Your task to perform on an android device: open device folders in google photos Image 0: 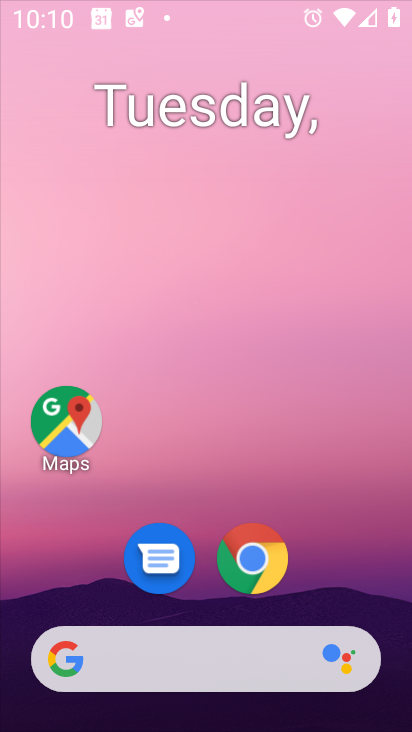
Step 0: drag from (175, 38) to (255, 560)
Your task to perform on an android device: open device folders in google photos Image 1: 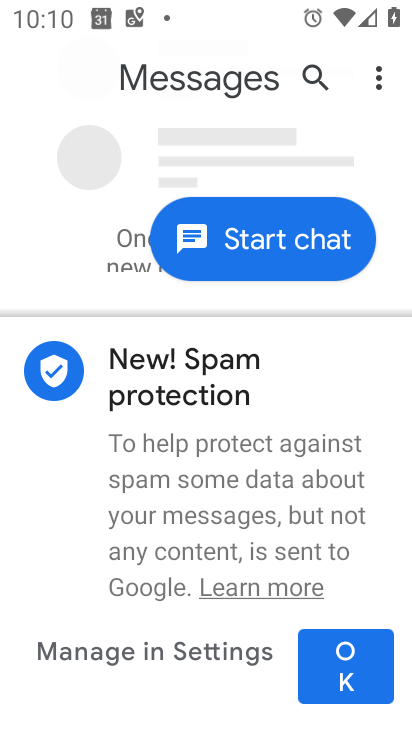
Step 1: click (255, 560)
Your task to perform on an android device: open device folders in google photos Image 2: 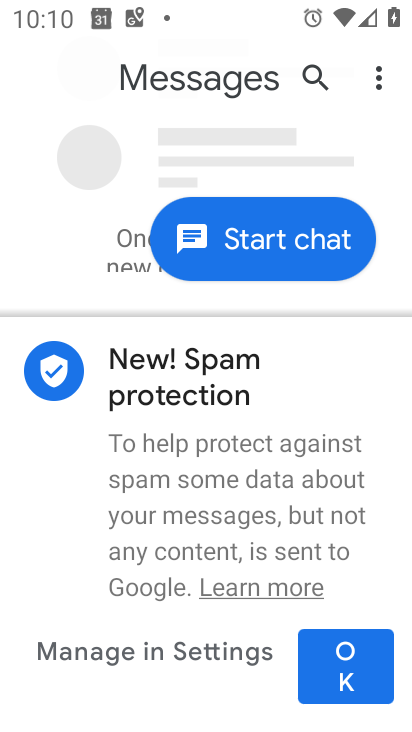
Step 2: press back button
Your task to perform on an android device: open device folders in google photos Image 3: 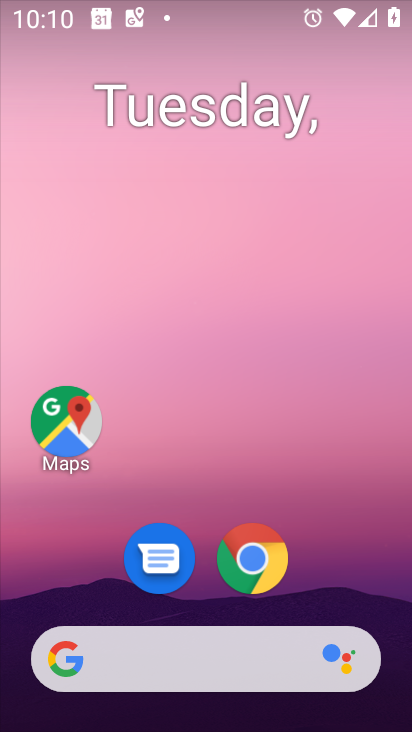
Step 3: drag from (323, 558) to (60, 1)
Your task to perform on an android device: open device folders in google photos Image 4: 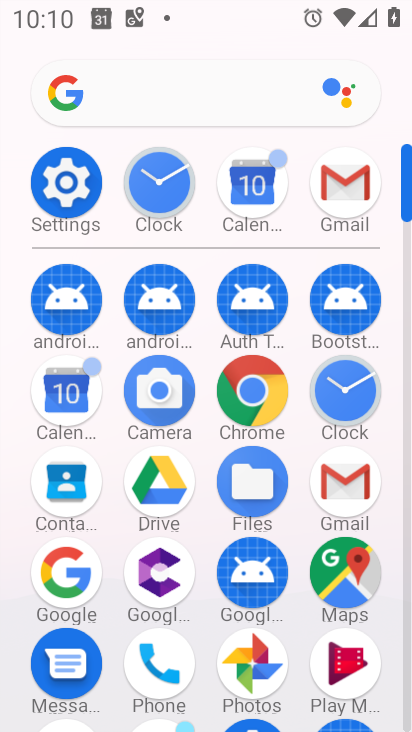
Step 4: click (257, 646)
Your task to perform on an android device: open device folders in google photos Image 5: 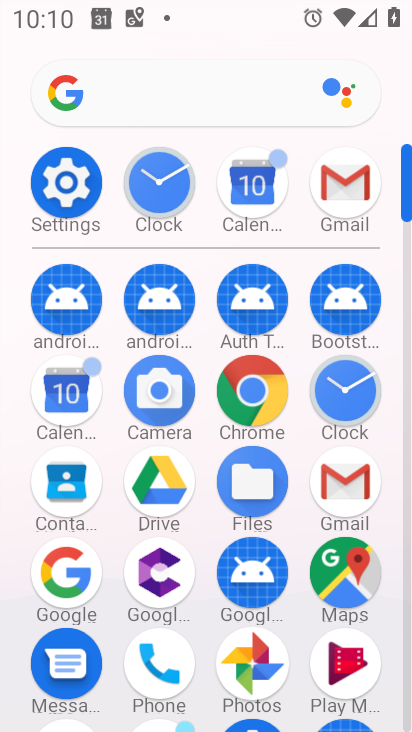
Step 5: click (254, 644)
Your task to perform on an android device: open device folders in google photos Image 6: 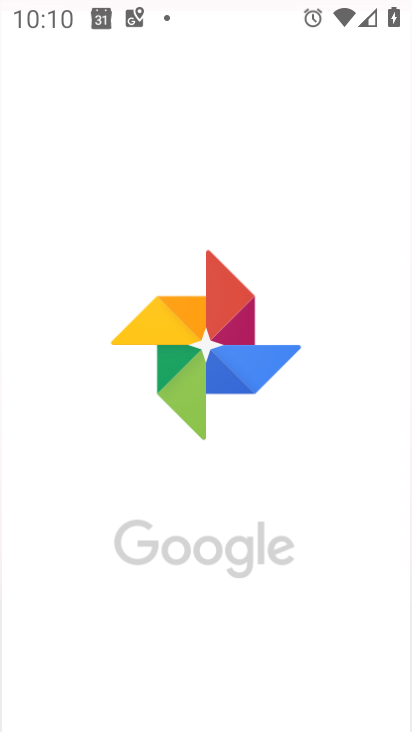
Step 6: click (260, 644)
Your task to perform on an android device: open device folders in google photos Image 7: 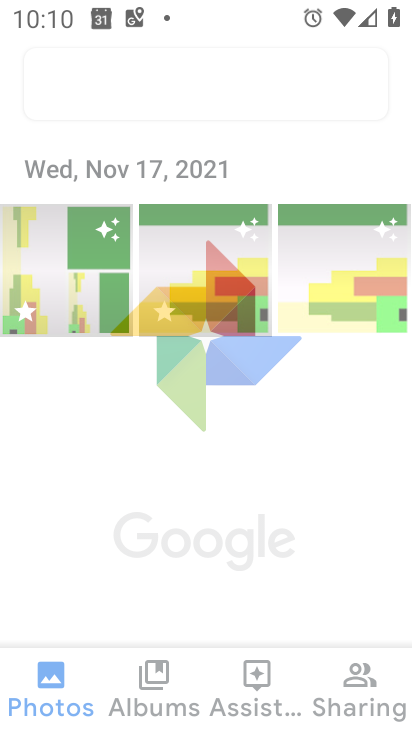
Step 7: click (261, 642)
Your task to perform on an android device: open device folders in google photos Image 8: 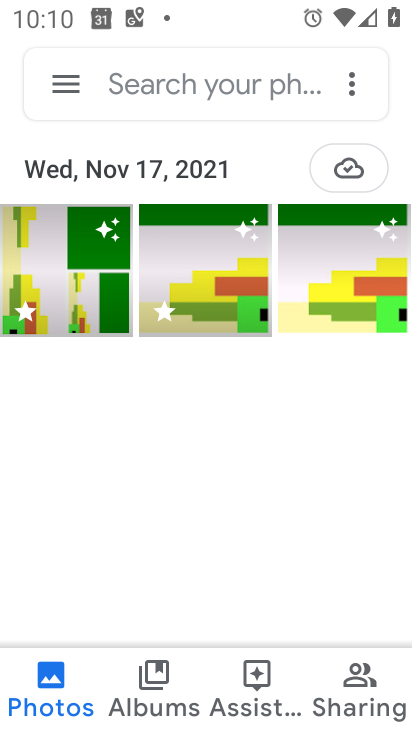
Step 8: drag from (74, 89) to (46, 43)
Your task to perform on an android device: open device folders in google photos Image 9: 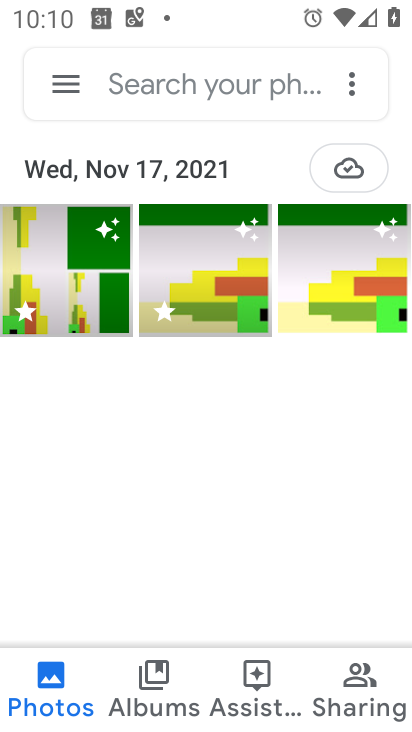
Step 9: click (68, 71)
Your task to perform on an android device: open device folders in google photos Image 10: 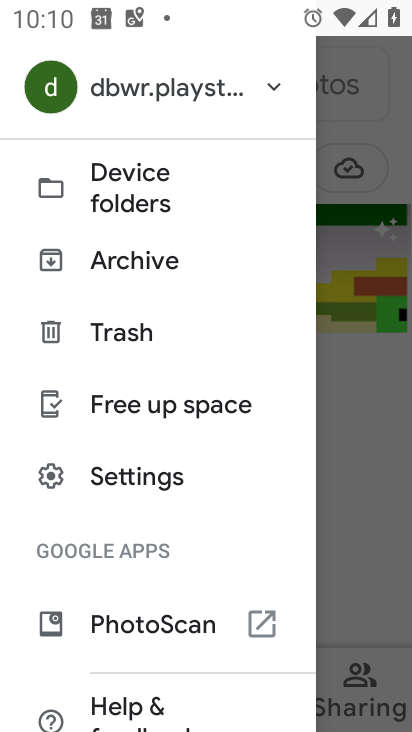
Step 10: click (124, 194)
Your task to perform on an android device: open device folders in google photos Image 11: 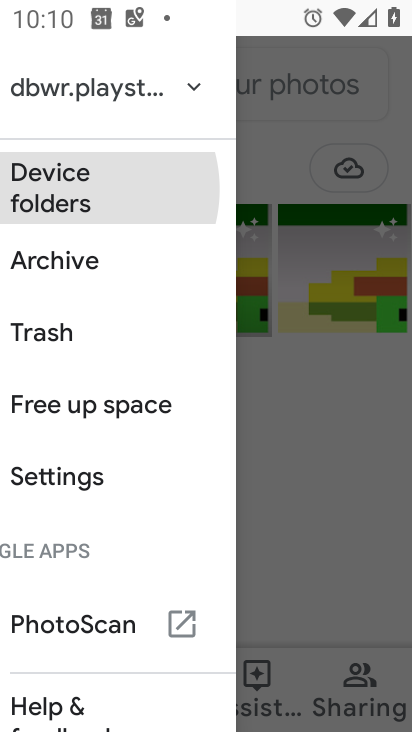
Step 11: click (124, 194)
Your task to perform on an android device: open device folders in google photos Image 12: 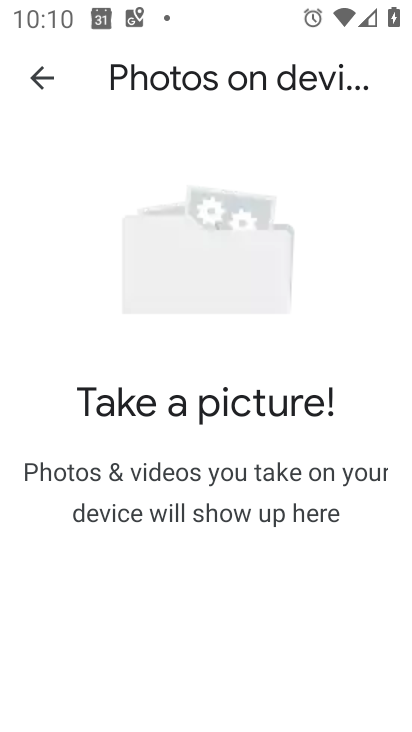
Step 12: click (124, 194)
Your task to perform on an android device: open device folders in google photos Image 13: 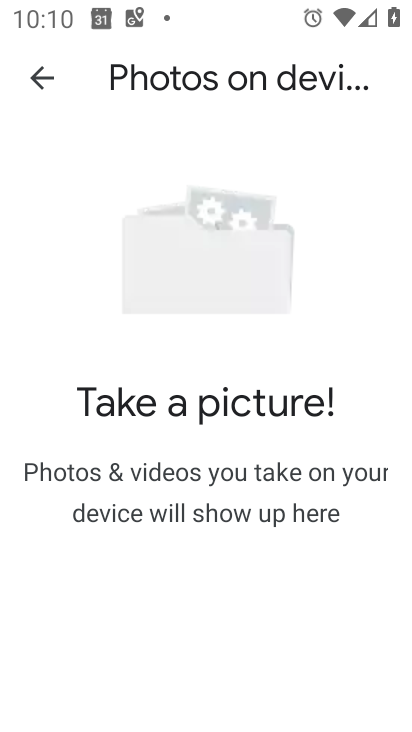
Step 13: task complete